Your task to perform on an android device: turn off picture-in-picture Image 0: 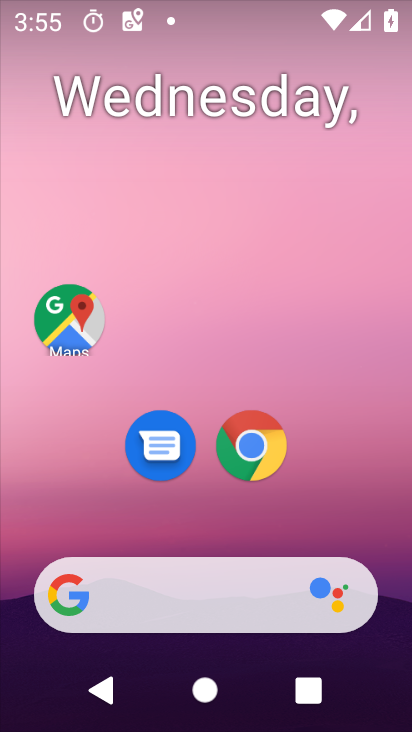
Step 0: click (248, 447)
Your task to perform on an android device: turn off picture-in-picture Image 1: 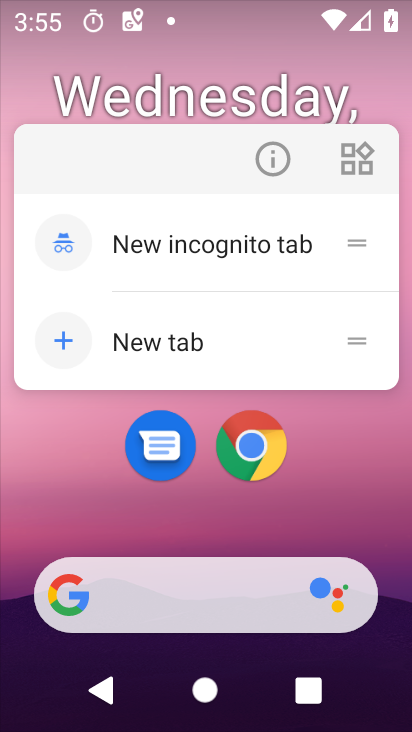
Step 1: click (270, 158)
Your task to perform on an android device: turn off picture-in-picture Image 2: 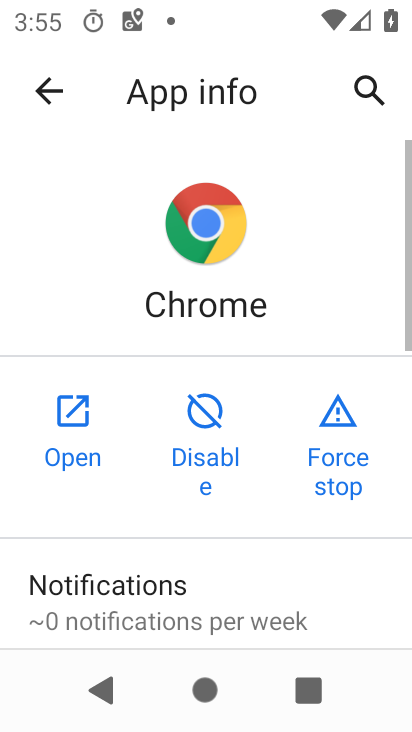
Step 2: drag from (227, 546) to (254, 103)
Your task to perform on an android device: turn off picture-in-picture Image 3: 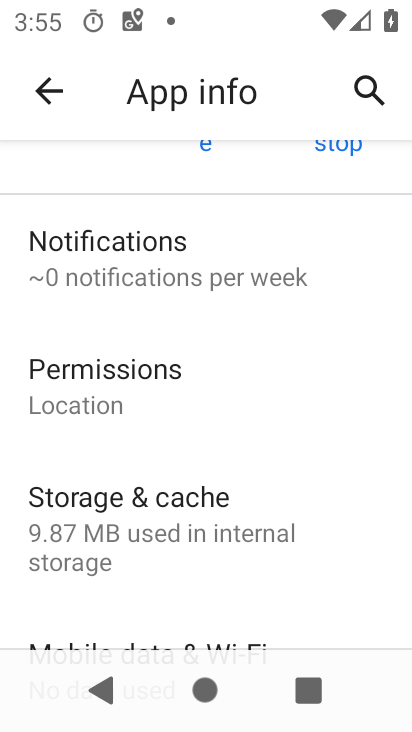
Step 3: drag from (191, 490) to (195, 84)
Your task to perform on an android device: turn off picture-in-picture Image 4: 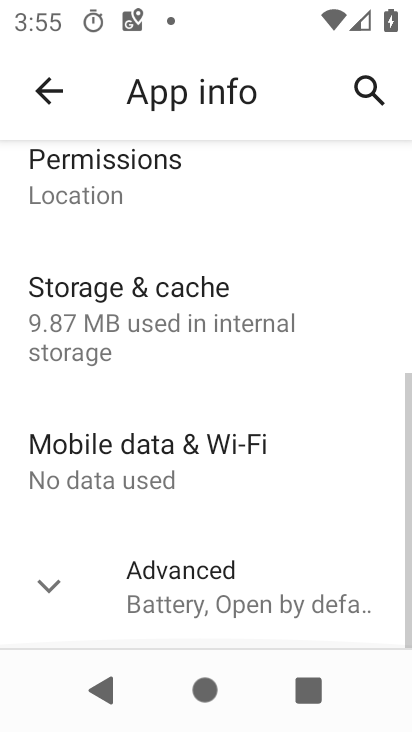
Step 4: click (155, 596)
Your task to perform on an android device: turn off picture-in-picture Image 5: 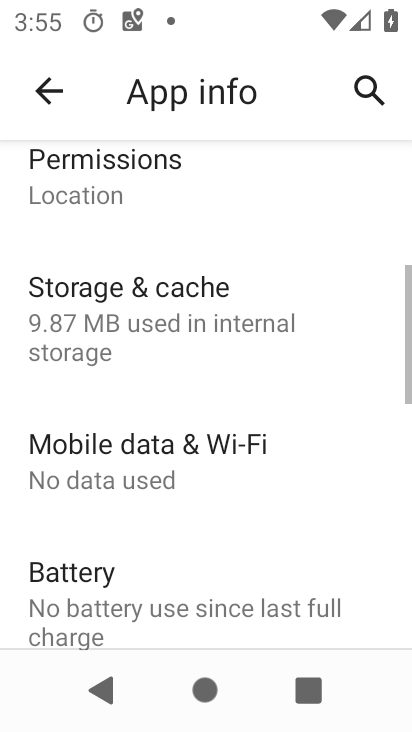
Step 5: drag from (300, 524) to (285, 133)
Your task to perform on an android device: turn off picture-in-picture Image 6: 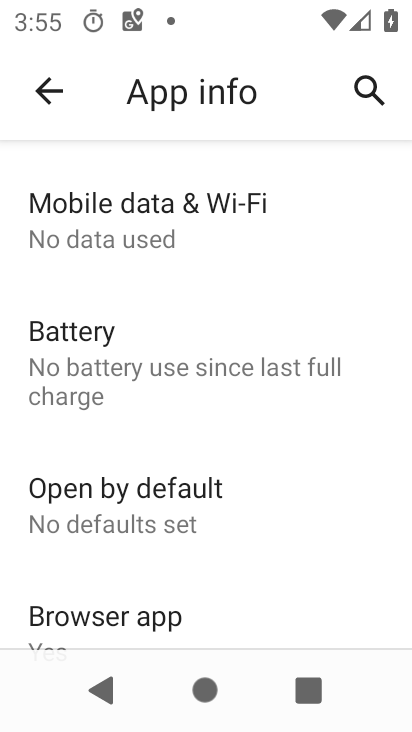
Step 6: drag from (235, 525) to (283, 114)
Your task to perform on an android device: turn off picture-in-picture Image 7: 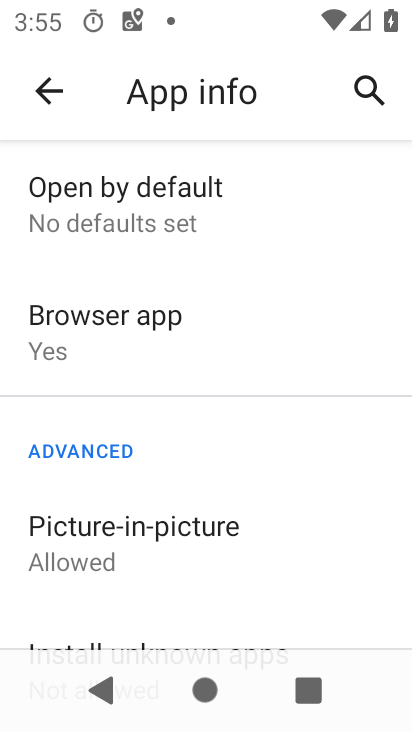
Step 7: click (125, 553)
Your task to perform on an android device: turn off picture-in-picture Image 8: 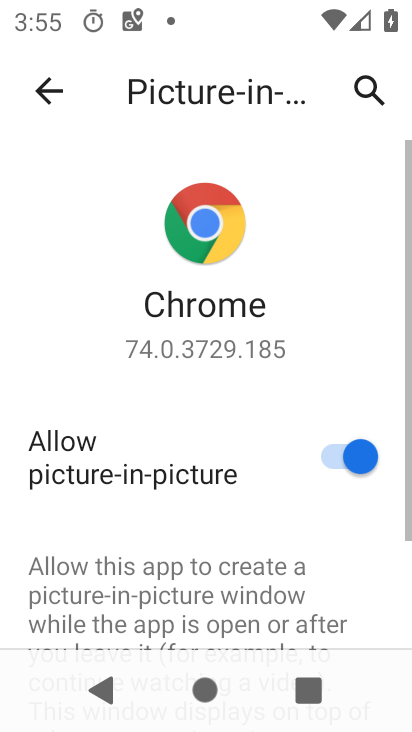
Step 8: click (345, 461)
Your task to perform on an android device: turn off picture-in-picture Image 9: 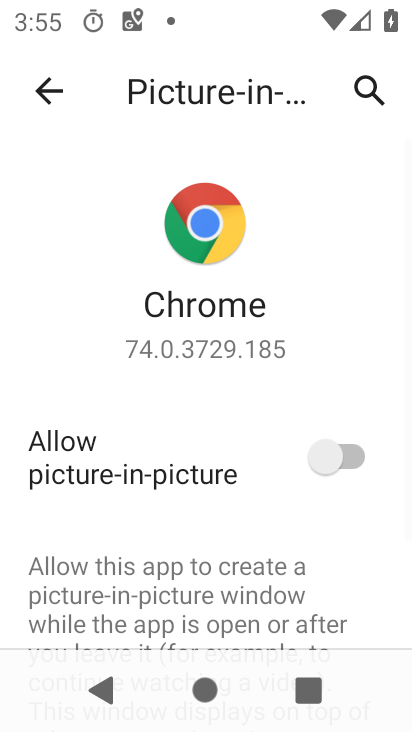
Step 9: task complete